Your task to perform on an android device: turn on translation in the chrome app Image 0: 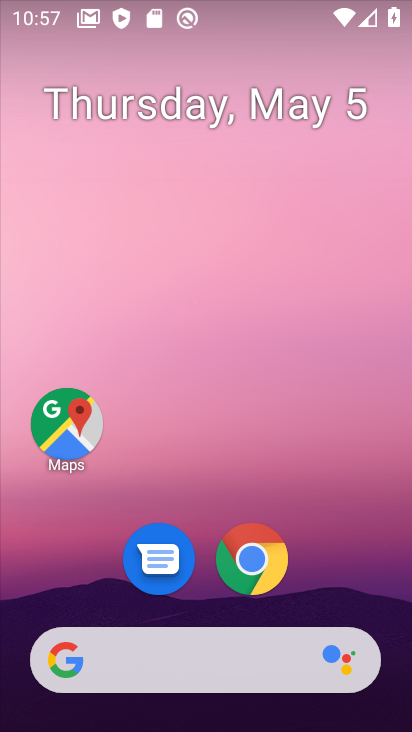
Step 0: click (252, 570)
Your task to perform on an android device: turn on translation in the chrome app Image 1: 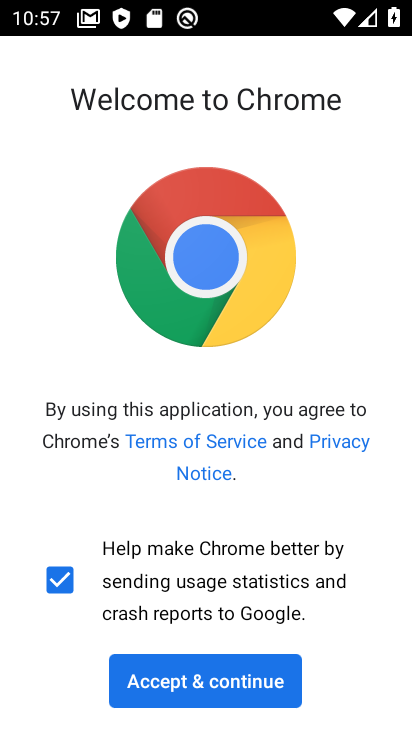
Step 1: click (215, 679)
Your task to perform on an android device: turn on translation in the chrome app Image 2: 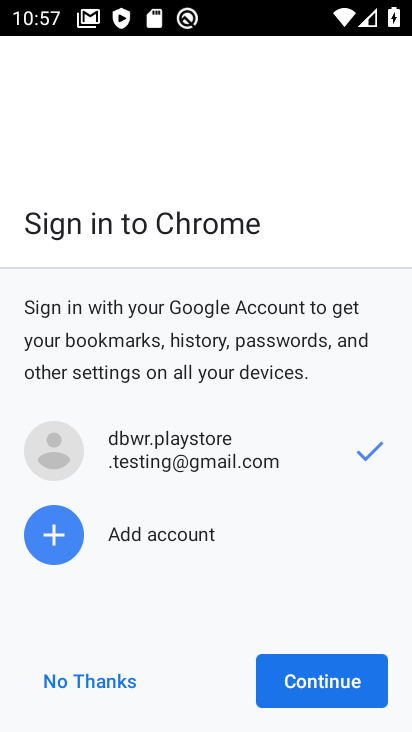
Step 2: click (331, 675)
Your task to perform on an android device: turn on translation in the chrome app Image 3: 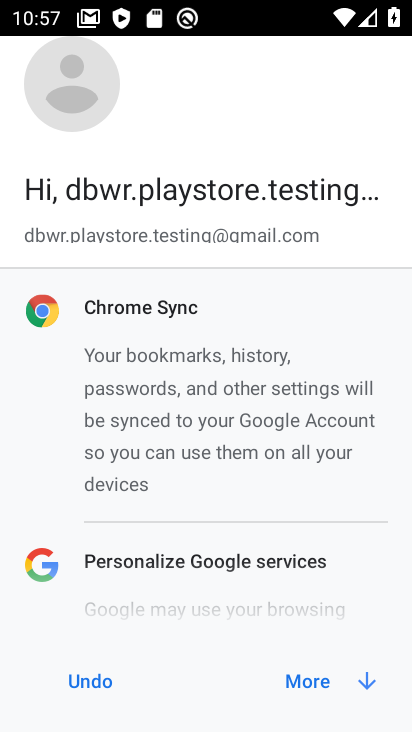
Step 3: click (336, 680)
Your task to perform on an android device: turn on translation in the chrome app Image 4: 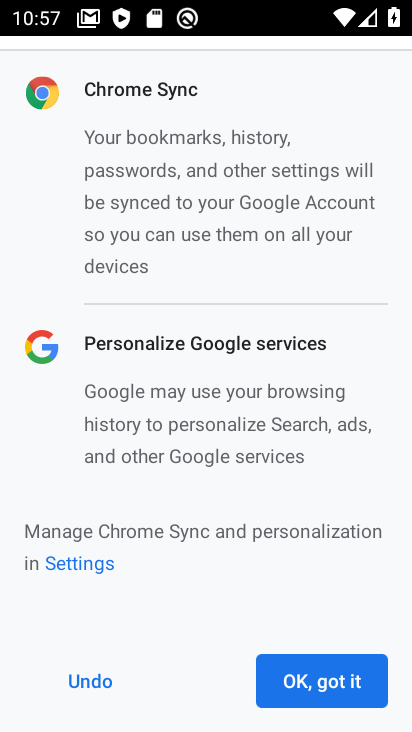
Step 4: click (342, 682)
Your task to perform on an android device: turn on translation in the chrome app Image 5: 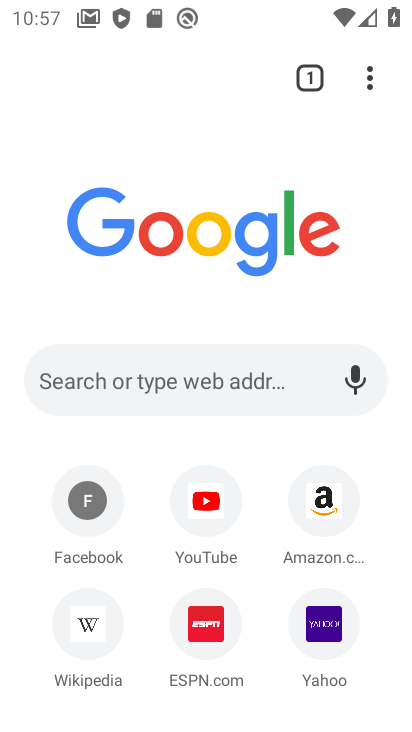
Step 5: click (368, 69)
Your task to perform on an android device: turn on translation in the chrome app Image 6: 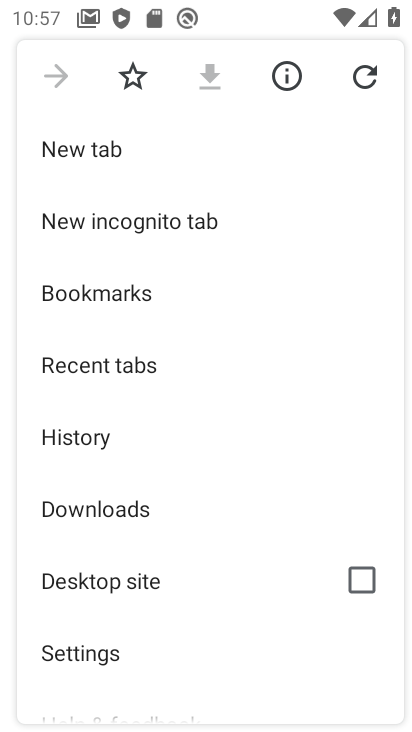
Step 6: drag from (179, 598) to (118, 201)
Your task to perform on an android device: turn on translation in the chrome app Image 7: 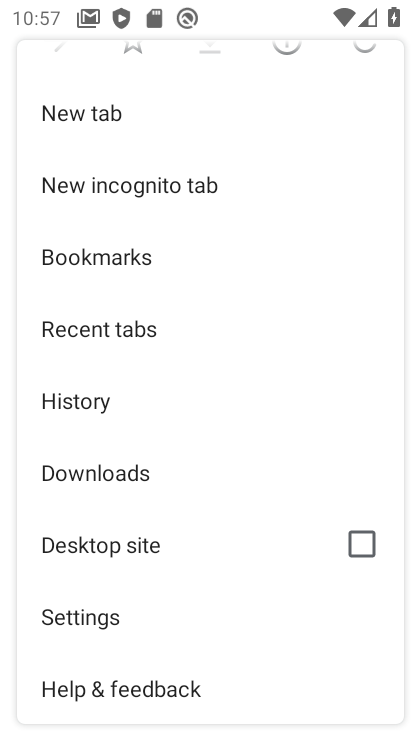
Step 7: click (87, 616)
Your task to perform on an android device: turn on translation in the chrome app Image 8: 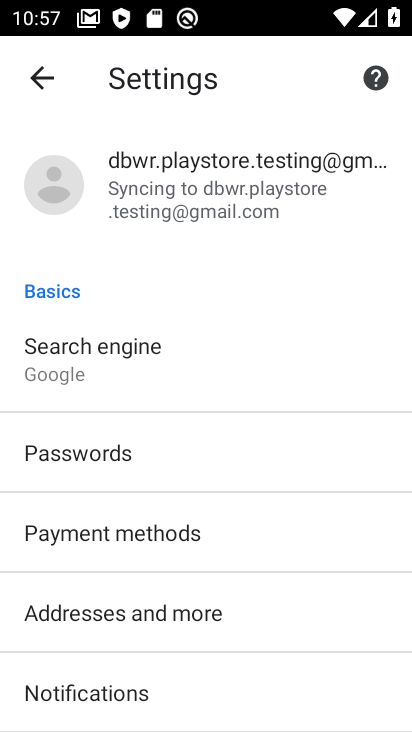
Step 8: drag from (230, 528) to (194, 157)
Your task to perform on an android device: turn on translation in the chrome app Image 9: 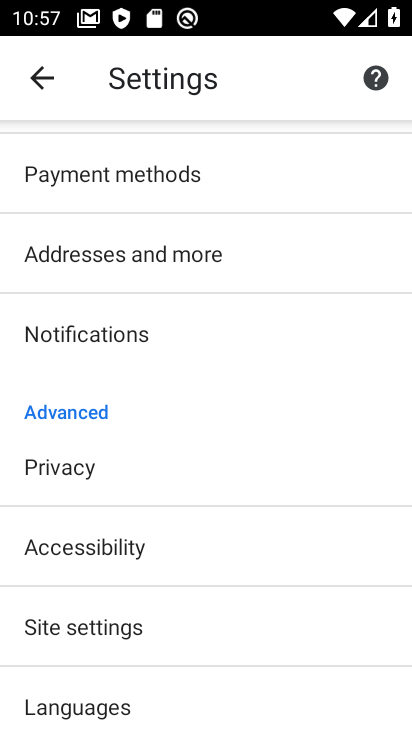
Step 9: drag from (205, 594) to (141, 296)
Your task to perform on an android device: turn on translation in the chrome app Image 10: 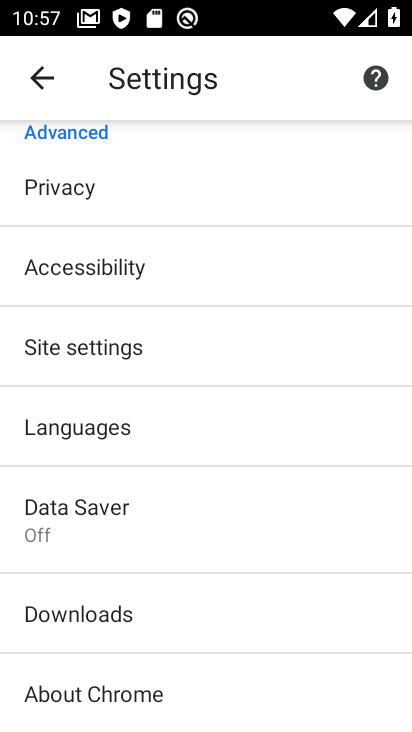
Step 10: click (93, 424)
Your task to perform on an android device: turn on translation in the chrome app Image 11: 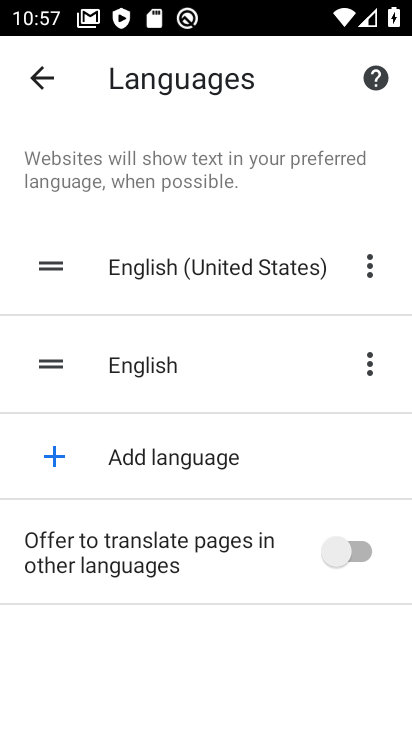
Step 11: click (343, 553)
Your task to perform on an android device: turn on translation in the chrome app Image 12: 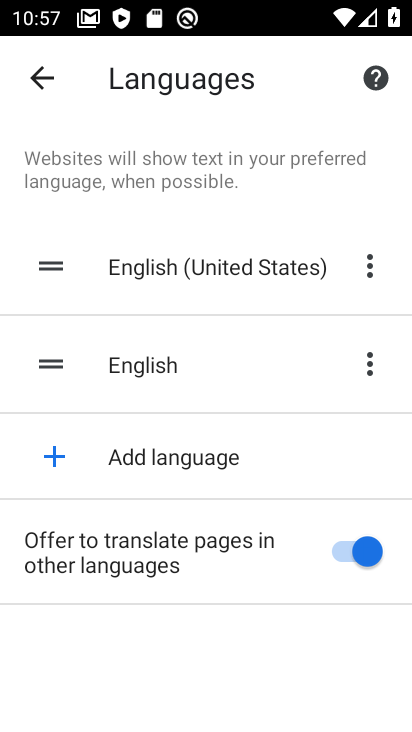
Step 12: task complete